Your task to perform on an android device: open a new tab in the chrome app Image 0: 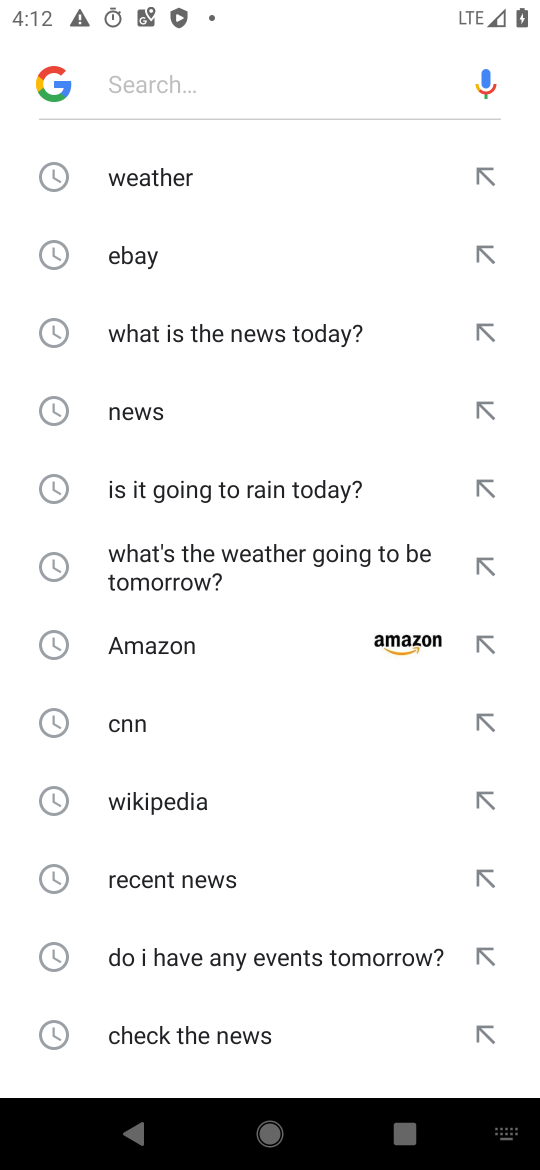
Step 0: press home button
Your task to perform on an android device: open a new tab in the chrome app Image 1: 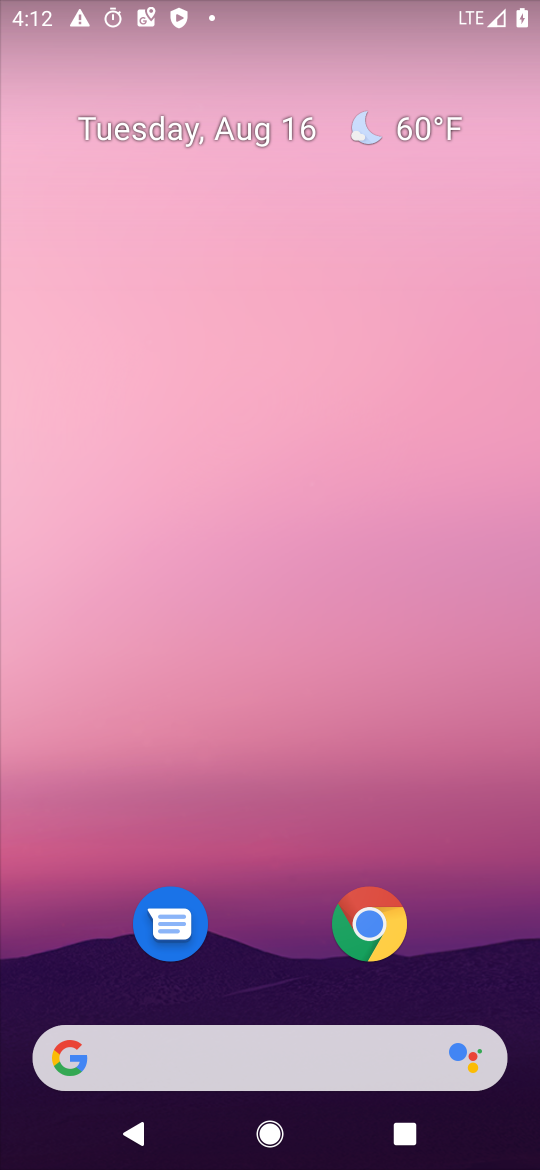
Step 1: click (373, 925)
Your task to perform on an android device: open a new tab in the chrome app Image 2: 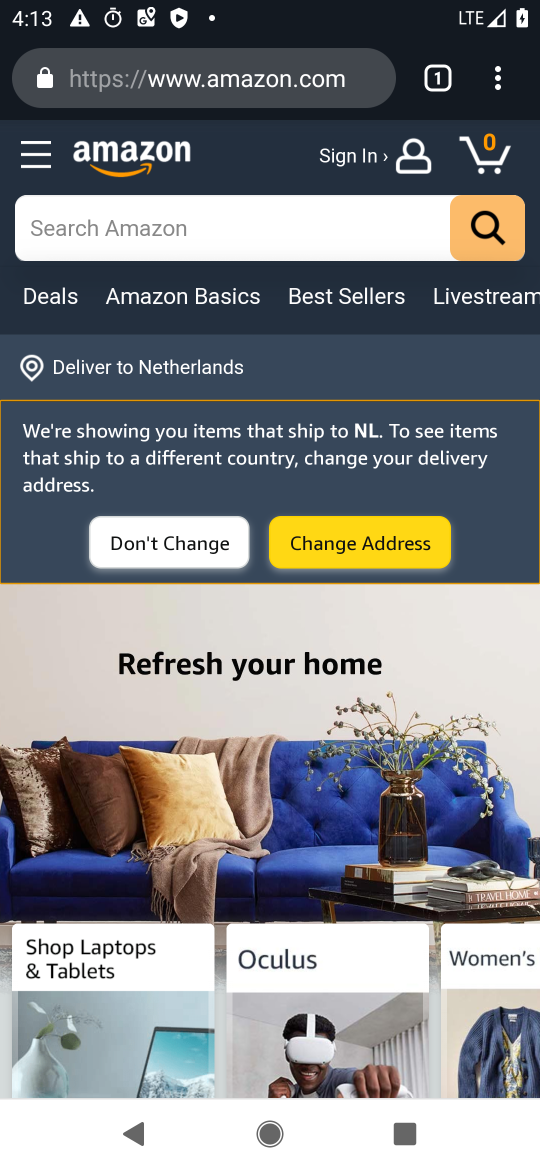
Step 2: click (432, 82)
Your task to perform on an android device: open a new tab in the chrome app Image 3: 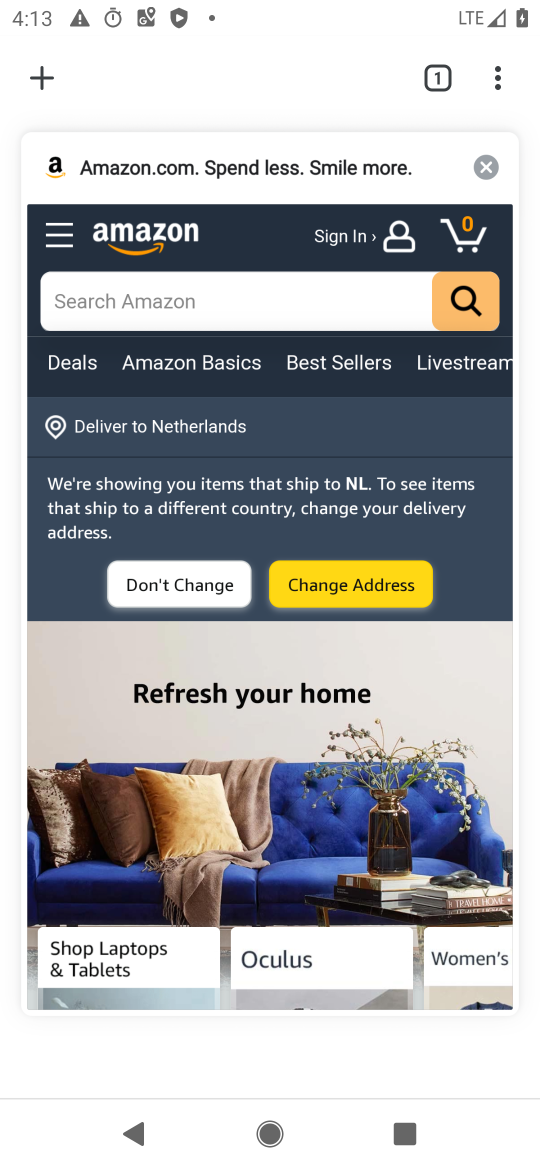
Step 3: click (46, 80)
Your task to perform on an android device: open a new tab in the chrome app Image 4: 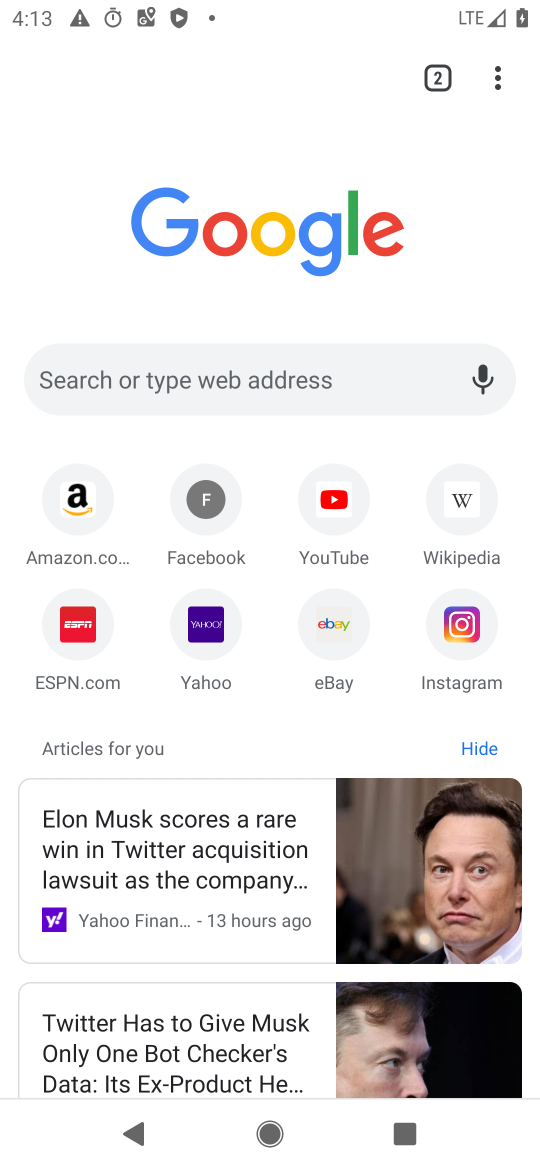
Step 4: task complete